Your task to perform on an android device: turn on airplane mode Image 0: 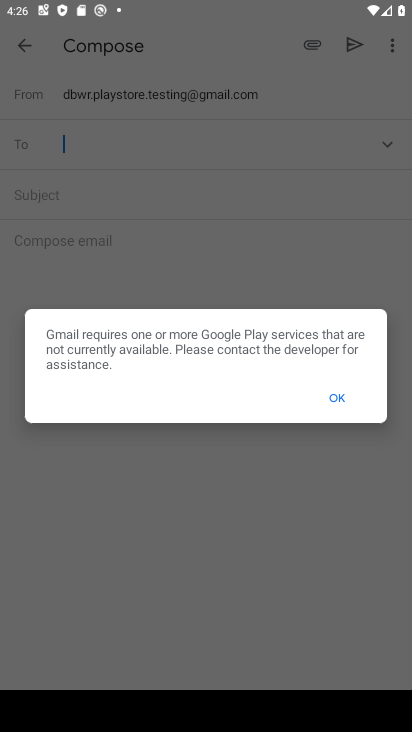
Step 0: drag from (311, 8) to (254, 554)
Your task to perform on an android device: turn on airplane mode Image 1: 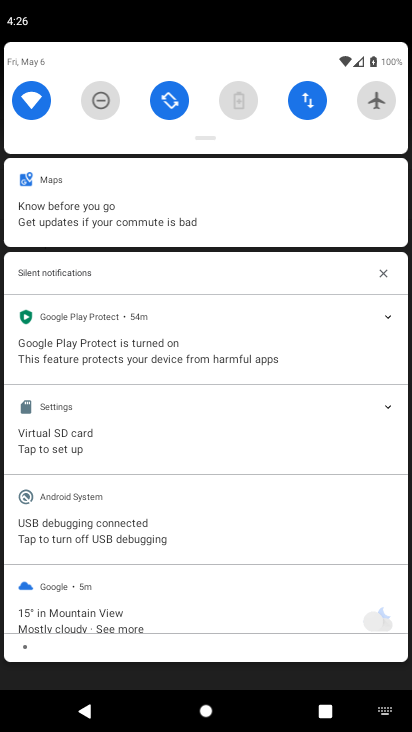
Step 1: click (372, 98)
Your task to perform on an android device: turn on airplane mode Image 2: 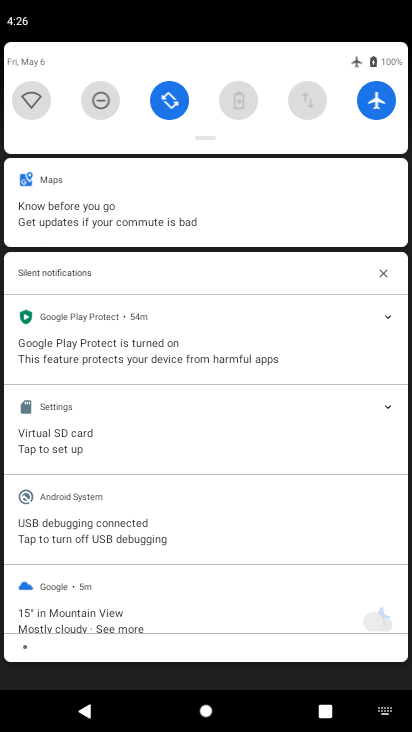
Step 2: task complete